Your task to perform on an android device: What's a good restaurant in San Francisco? Image 0: 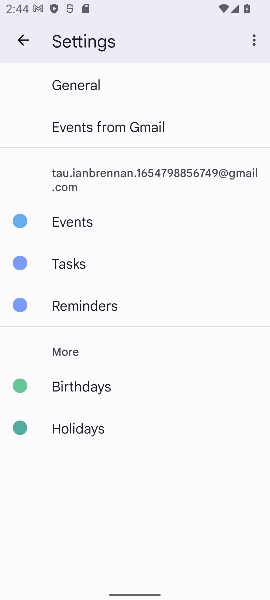
Step 0: press home button
Your task to perform on an android device: What's a good restaurant in San Francisco? Image 1: 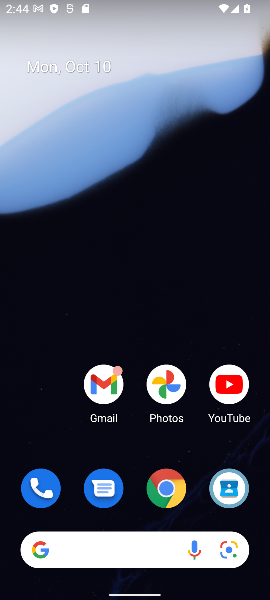
Step 1: click (112, 559)
Your task to perform on an android device: What's a good restaurant in San Francisco? Image 2: 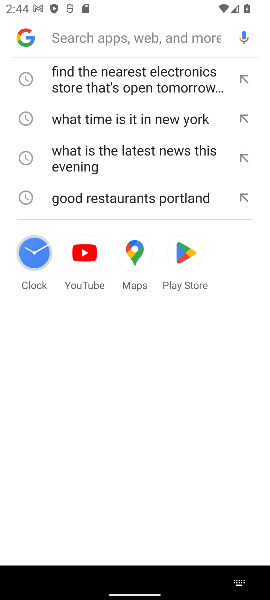
Step 2: click (110, 33)
Your task to perform on an android device: What's a good restaurant in San Francisco? Image 3: 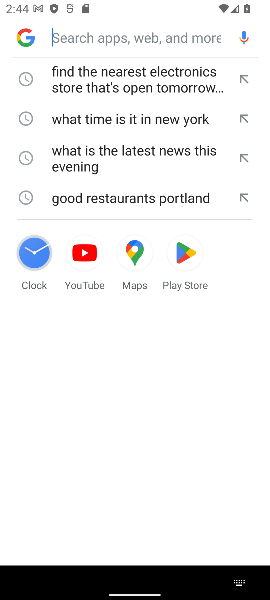
Step 3: type "What's a good restaurant in San Francisco"
Your task to perform on an android device: What's a good restaurant in San Francisco? Image 4: 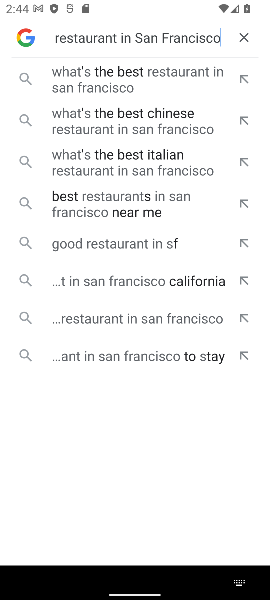
Step 4: click (119, 86)
Your task to perform on an android device: What's a good restaurant in San Francisco? Image 5: 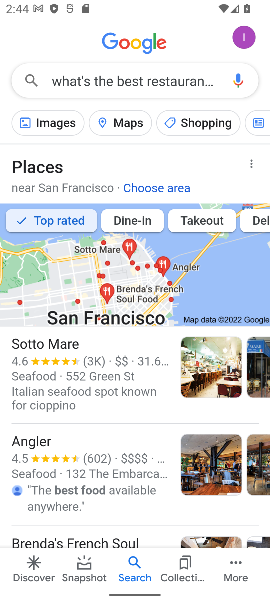
Step 5: task complete